Your task to perform on an android device: turn off airplane mode Image 0: 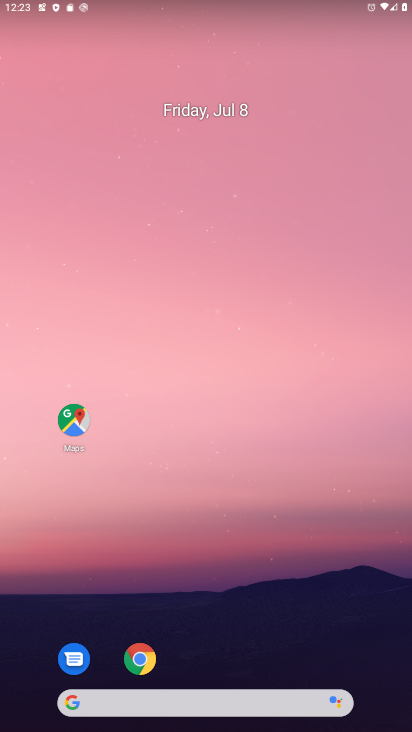
Step 0: drag from (248, 607) to (200, 318)
Your task to perform on an android device: turn off airplane mode Image 1: 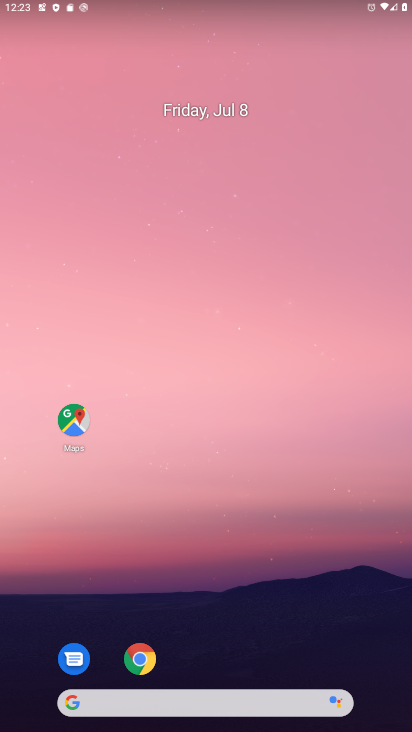
Step 1: drag from (230, 606) to (153, 163)
Your task to perform on an android device: turn off airplane mode Image 2: 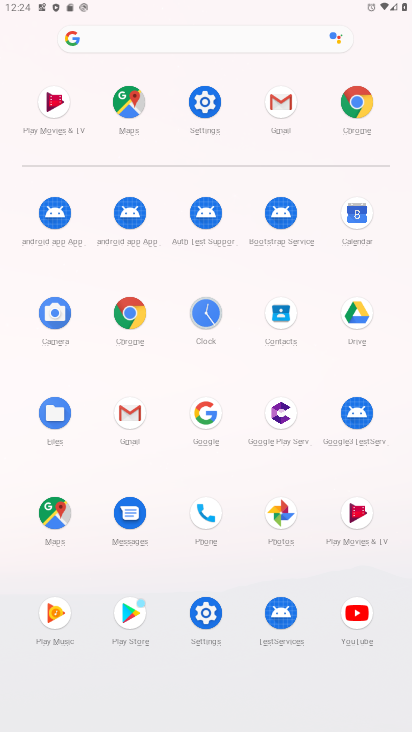
Step 2: click (206, 98)
Your task to perform on an android device: turn off airplane mode Image 3: 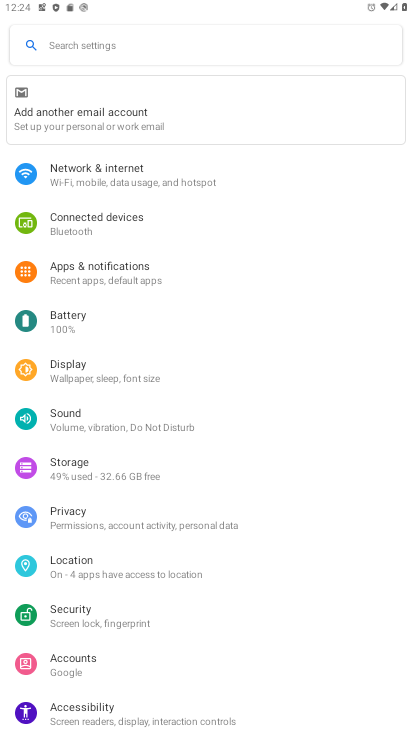
Step 3: click (97, 173)
Your task to perform on an android device: turn off airplane mode Image 4: 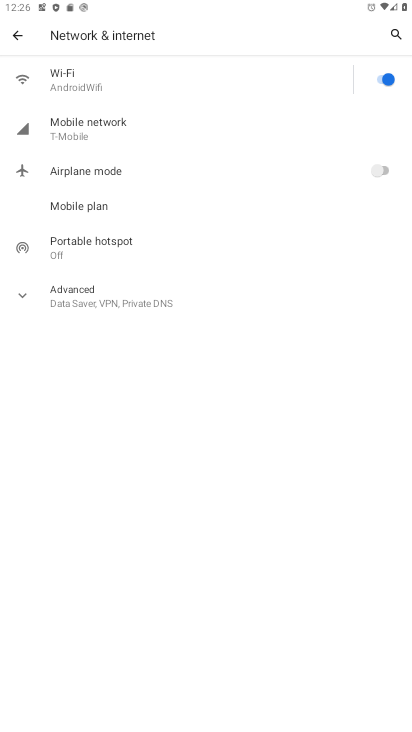
Step 4: task complete